Your task to perform on an android device: What is the news today? Image 0: 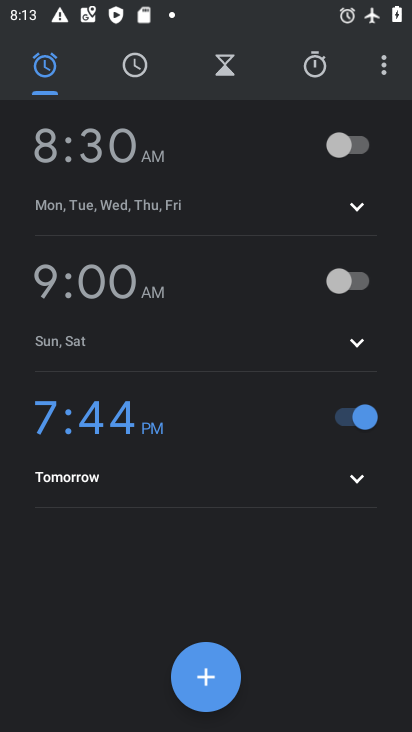
Step 0: press home button
Your task to perform on an android device: What is the news today? Image 1: 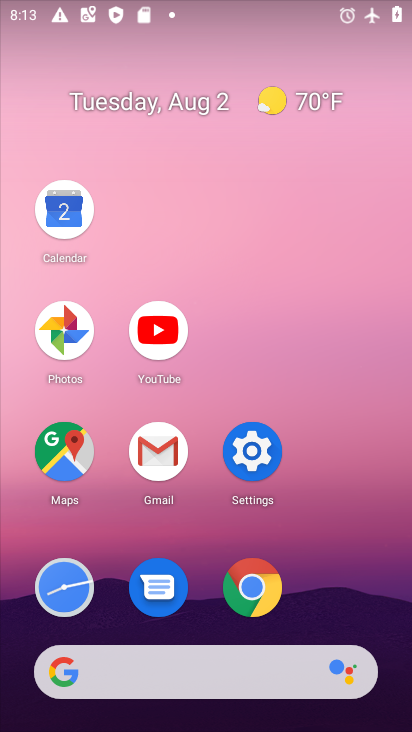
Step 1: drag from (66, 206) to (265, 342)
Your task to perform on an android device: What is the news today? Image 2: 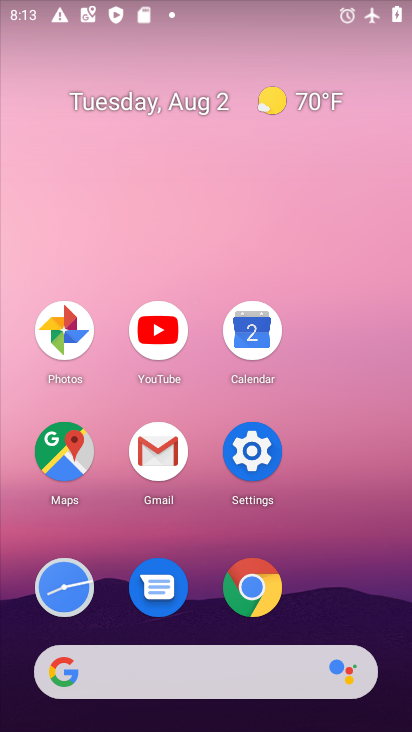
Step 2: drag from (28, 196) to (401, 247)
Your task to perform on an android device: What is the news today? Image 3: 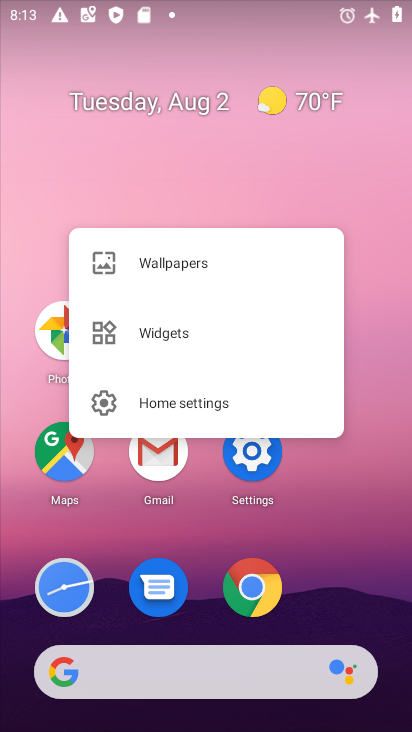
Step 3: click (238, 175)
Your task to perform on an android device: What is the news today? Image 4: 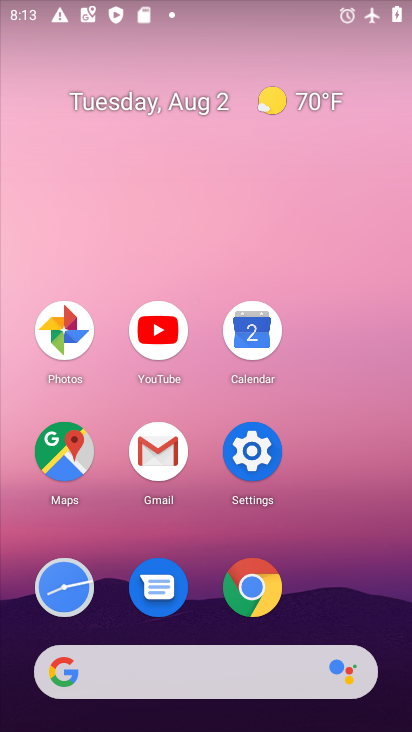
Step 4: task complete